Your task to perform on an android device: find snoozed emails in the gmail app Image 0: 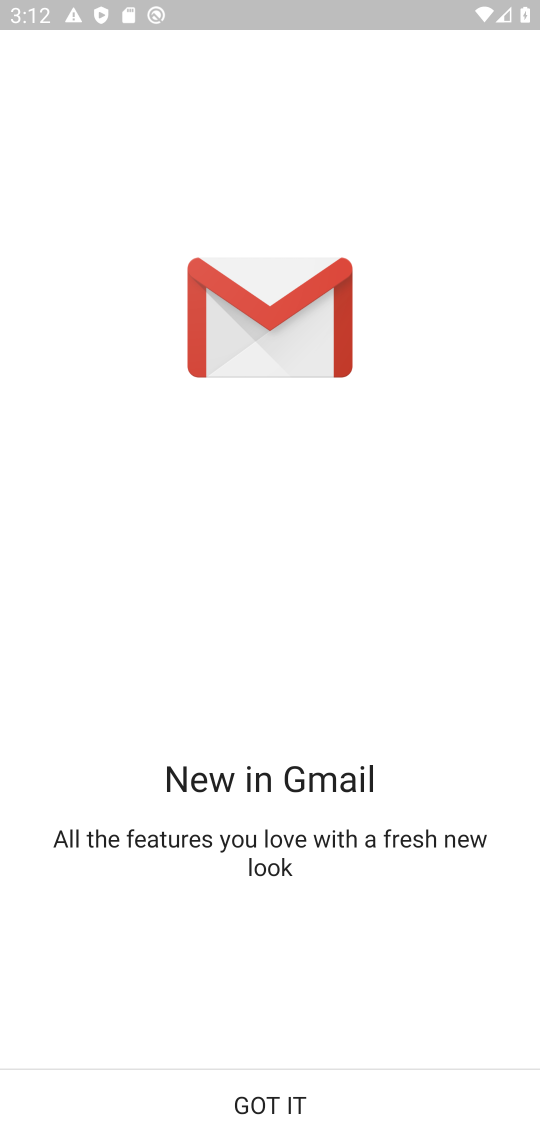
Step 0: click (265, 1099)
Your task to perform on an android device: find snoozed emails in the gmail app Image 1: 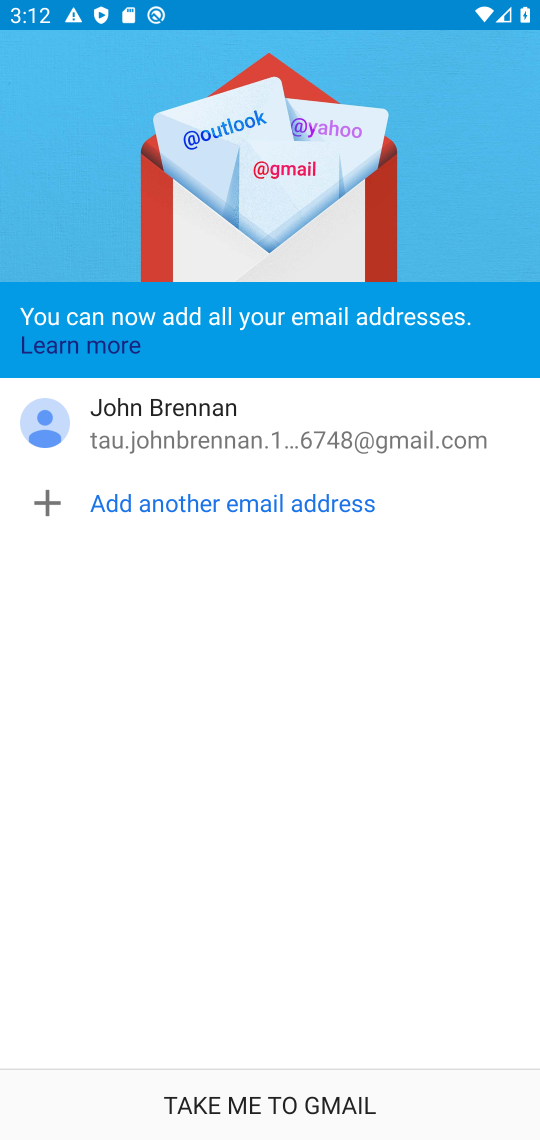
Step 1: click (236, 1094)
Your task to perform on an android device: find snoozed emails in the gmail app Image 2: 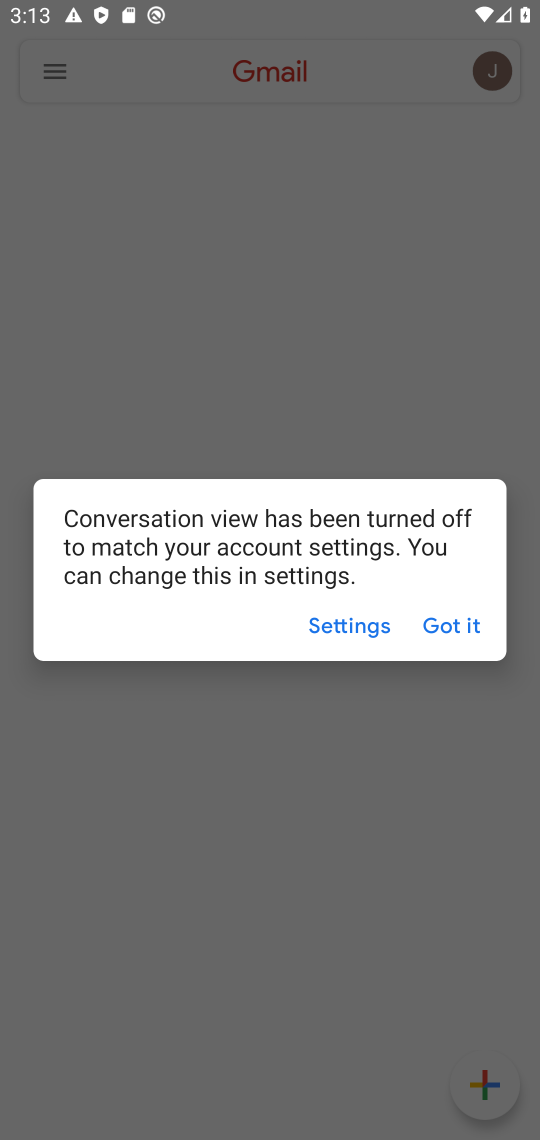
Step 2: click (447, 625)
Your task to perform on an android device: find snoozed emails in the gmail app Image 3: 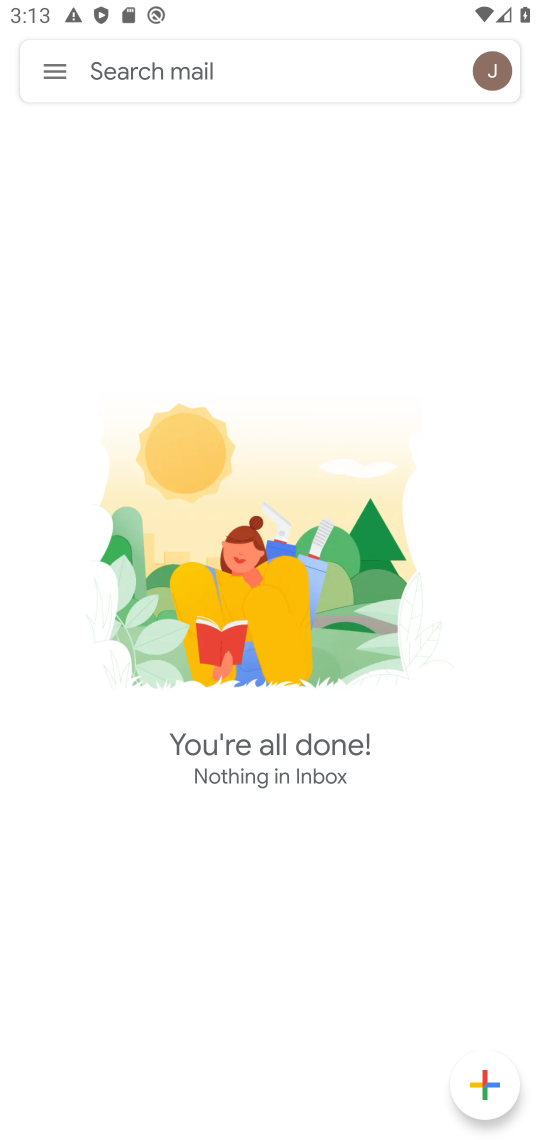
Step 3: task complete